Your task to perform on an android device: Open my contact list Image 0: 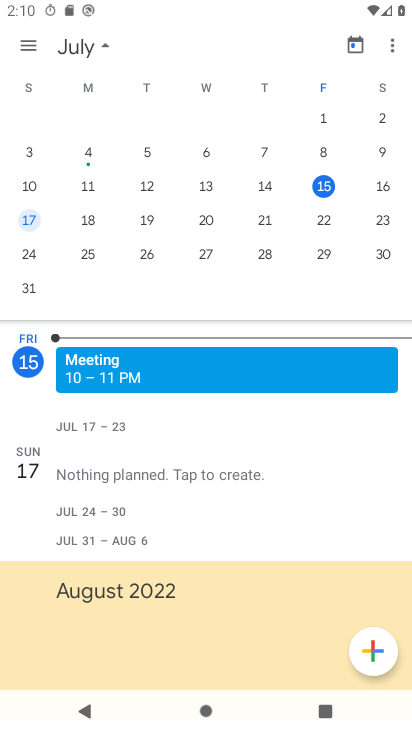
Step 0: press home button
Your task to perform on an android device: Open my contact list Image 1: 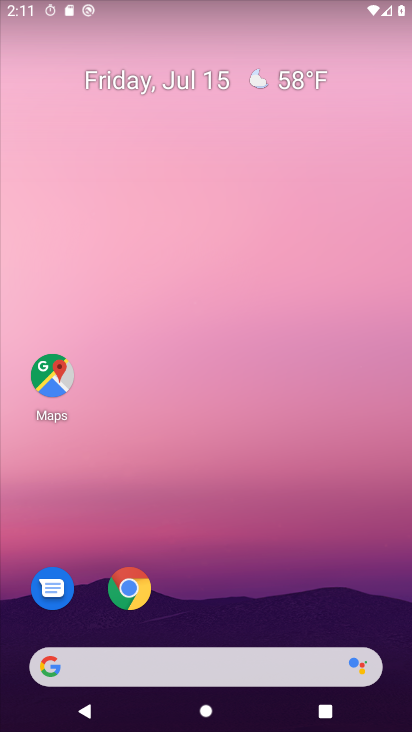
Step 1: drag from (231, 557) to (212, 221)
Your task to perform on an android device: Open my contact list Image 2: 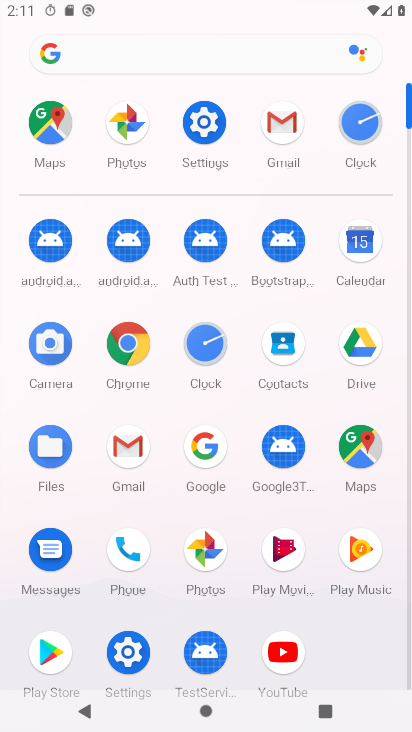
Step 2: click (288, 364)
Your task to perform on an android device: Open my contact list Image 3: 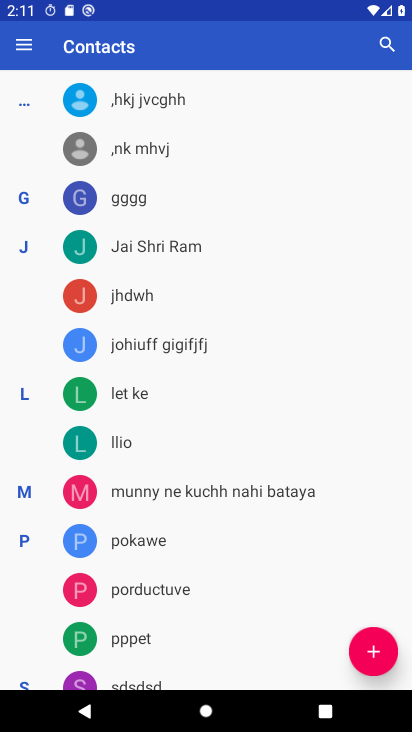
Step 3: task complete